Your task to perform on an android device: set an alarm Image 0: 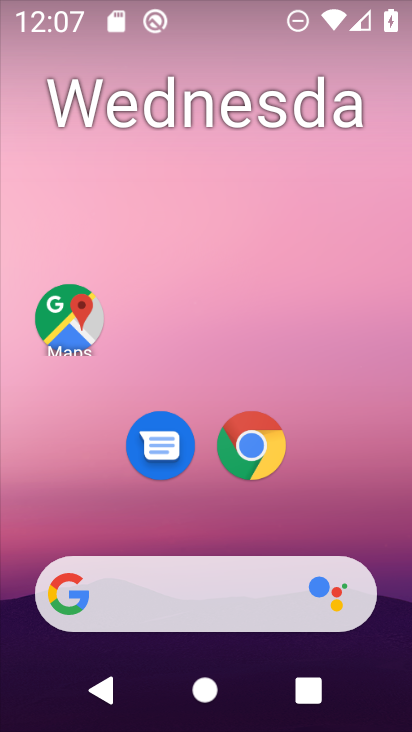
Step 0: drag from (89, 458) to (176, 184)
Your task to perform on an android device: set an alarm Image 1: 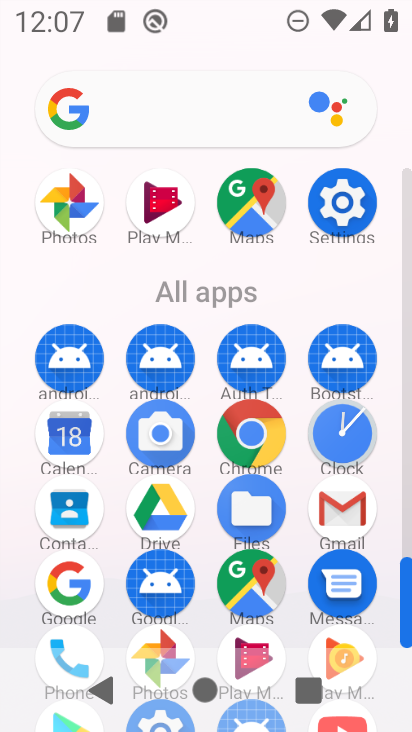
Step 1: click (358, 418)
Your task to perform on an android device: set an alarm Image 2: 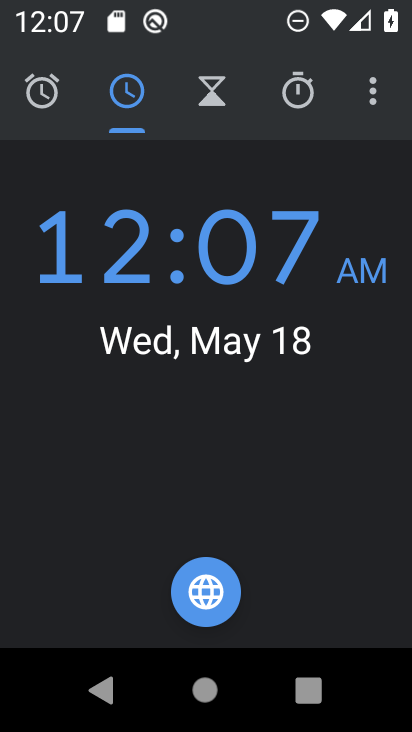
Step 2: click (74, 102)
Your task to perform on an android device: set an alarm Image 3: 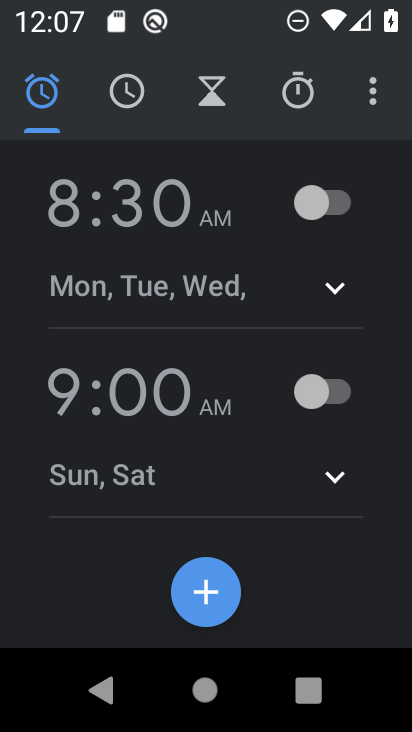
Step 3: task complete